Your task to perform on an android device: change the clock display to show seconds Image 0: 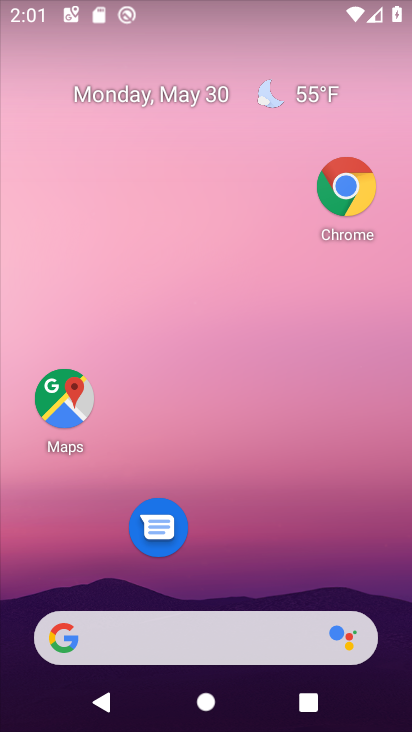
Step 0: drag from (256, 573) to (372, 65)
Your task to perform on an android device: change the clock display to show seconds Image 1: 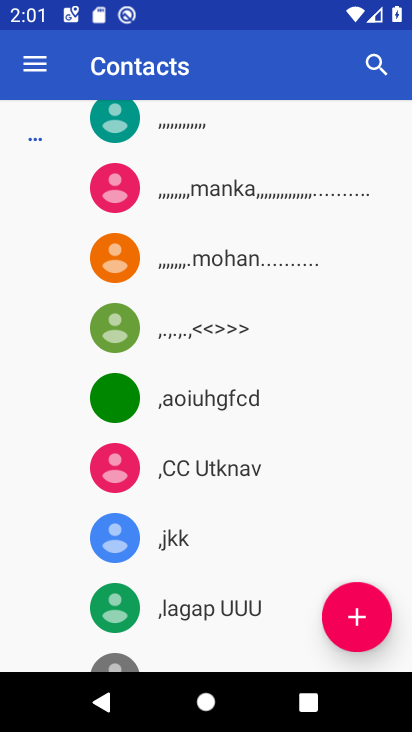
Step 1: drag from (235, 575) to (264, 175)
Your task to perform on an android device: change the clock display to show seconds Image 2: 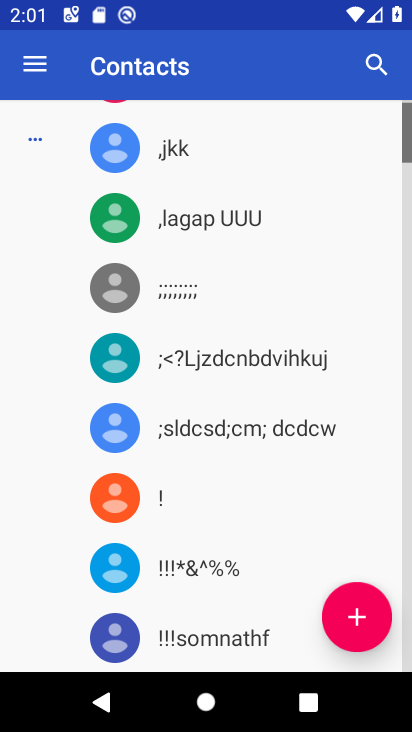
Step 2: press home button
Your task to perform on an android device: change the clock display to show seconds Image 3: 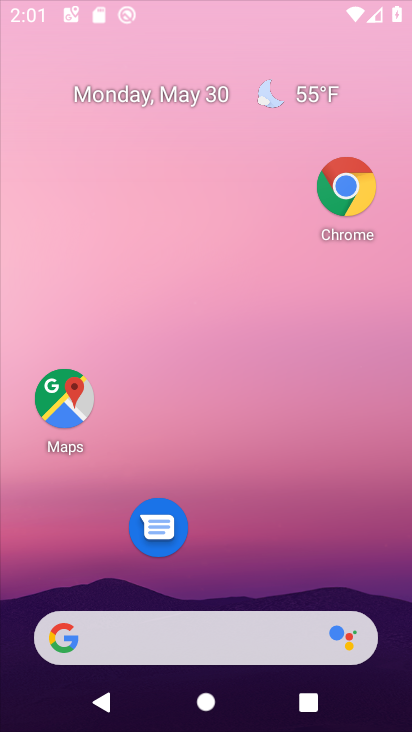
Step 3: drag from (230, 505) to (239, 151)
Your task to perform on an android device: change the clock display to show seconds Image 4: 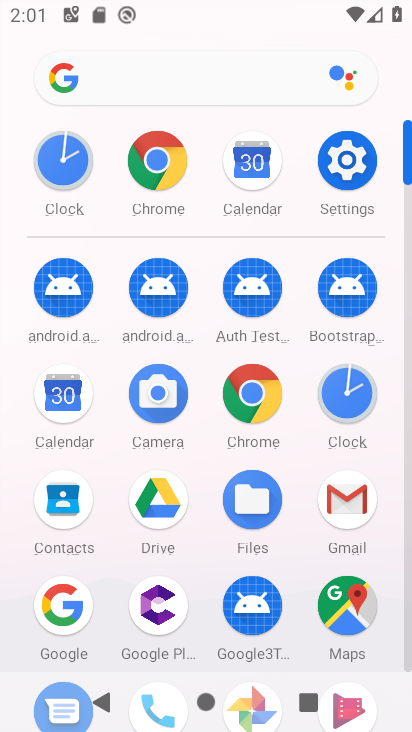
Step 4: click (356, 374)
Your task to perform on an android device: change the clock display to show seconds Image 5: 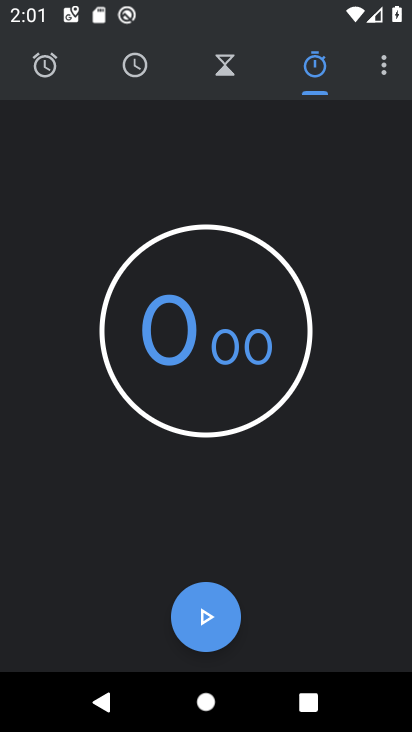
Step 5: click (372, 71)
Your task to perform on an android device: change the clock display to show seconds Image 6: 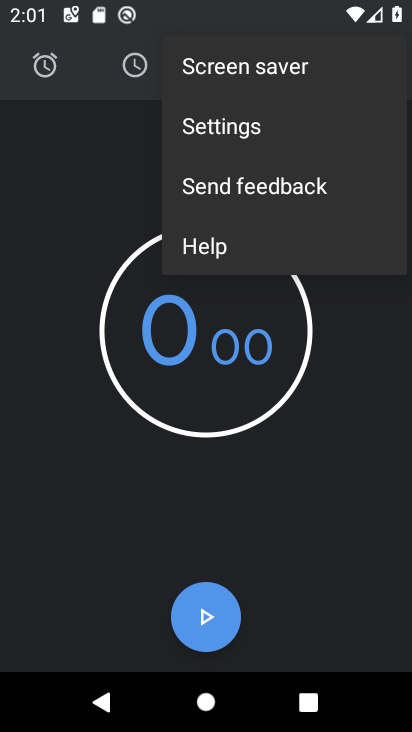
Step 6: click (279, 116)
Your task to perform on an android device: change the clock display to show seconds Image 7: 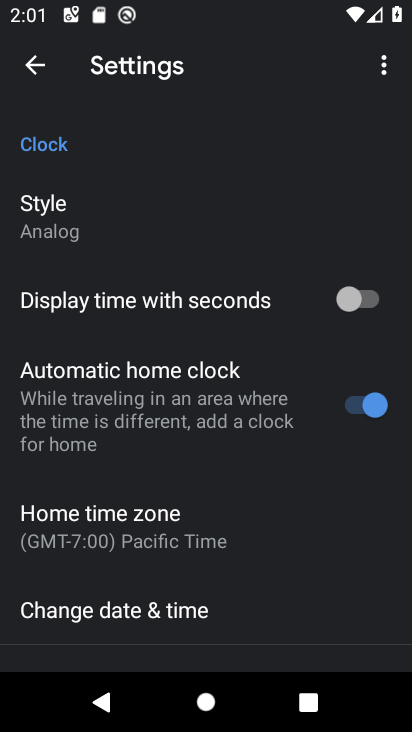
Step 7: click (258, 294)
Your task to perform on an android device: change the clock display to show seconds Image 8: 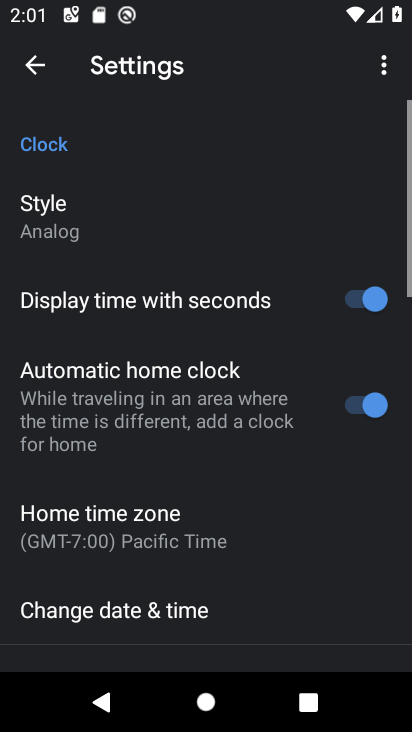
Step 8: task complete